Your task to perform on an android device: Open wifi settings Image 0: 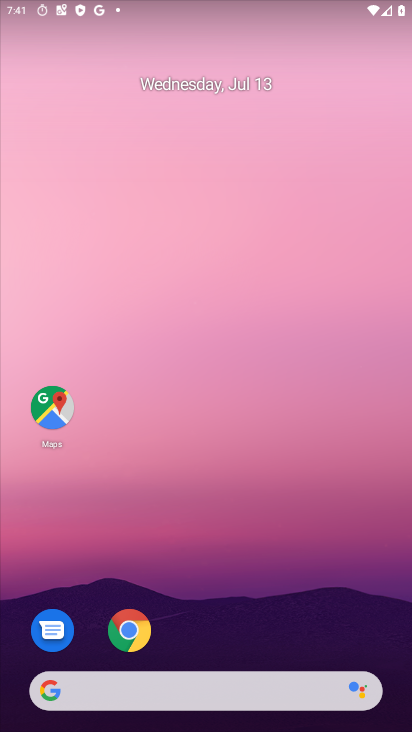
Step 0: drag from (371, 627) to (256, 52)
Your task to perform on an android device: Open wifi settings Image 1: 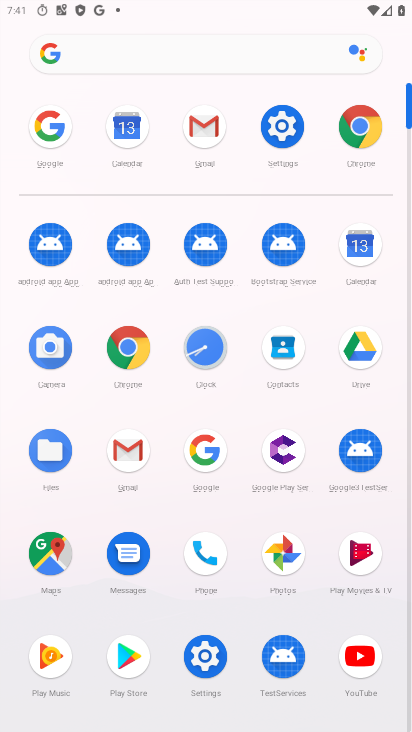
Step 1: click (282, 136)
Your task to perform on an android device: Open wifi settings Image 2: 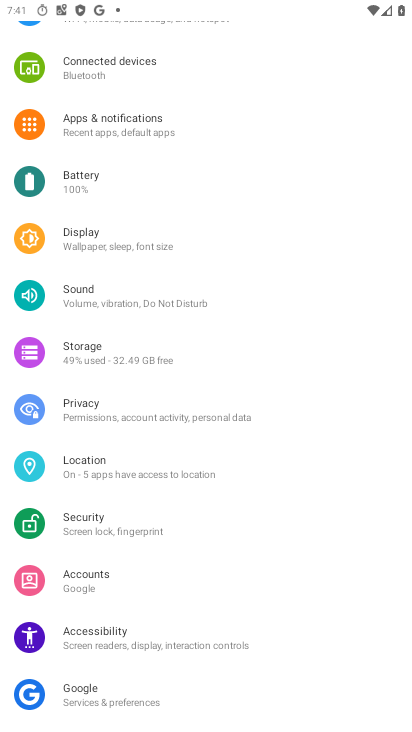
Step 2: drag from (172, 113) to (124, 657)
Your task to perform on an android device: Open wifi settings Image 3: 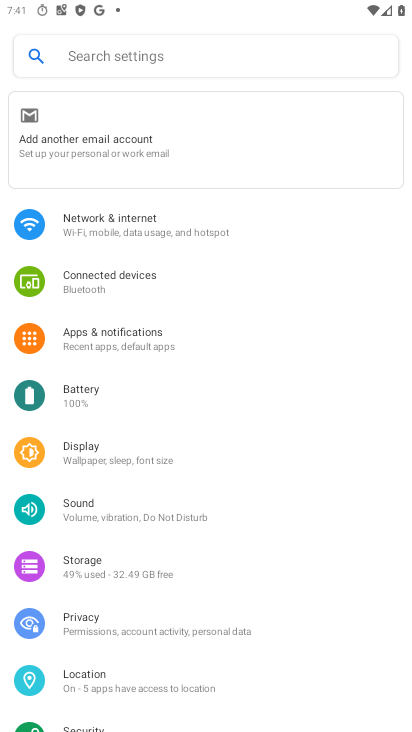
Step 3: click (147, 219)
Your task to perform on an android device: Open wifi settings Image 4: 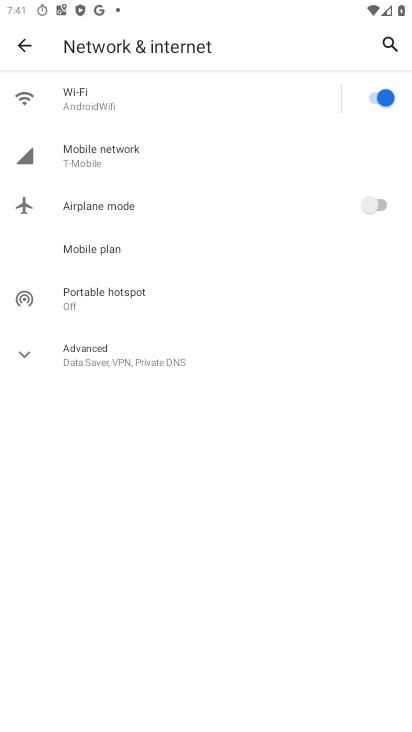
Step 4: click (122, 102)
Your task to perform on an android device: Open wifi settings Image 5: 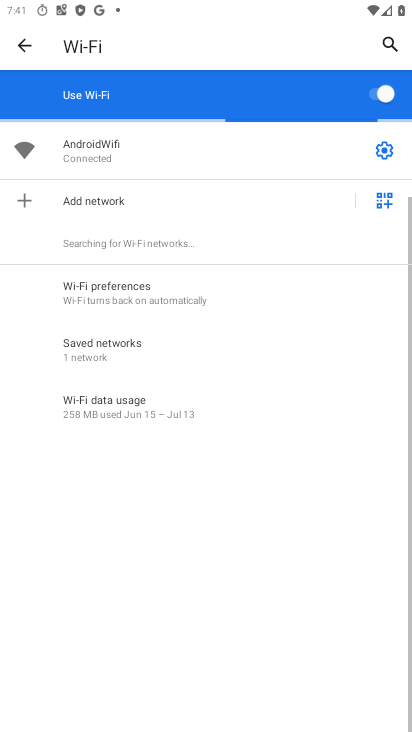
Step 5: task complete